Your task to perform on an android device: open a new tab in the chrome app Image 0: 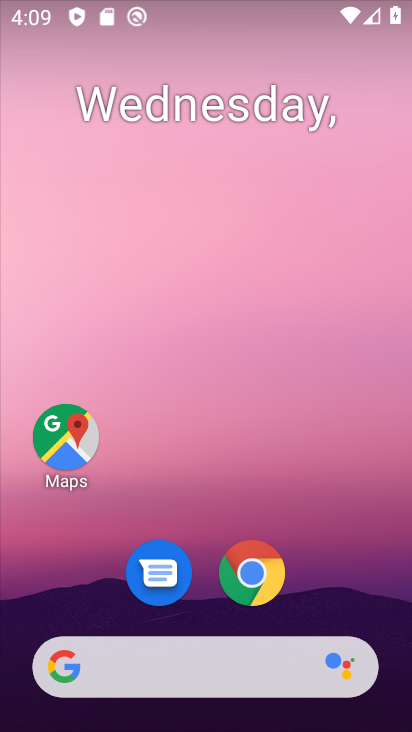
Step 0: click (260, 577)
Your task to perform on an android device: open a new tab in the chrome app Image 1: 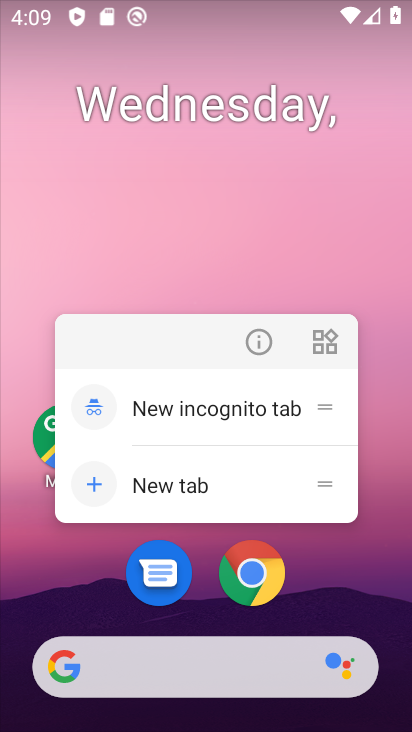
Step 1: click (254, 579)
Your task to perform on an android device: open a new tab in the chrome app Image 2: 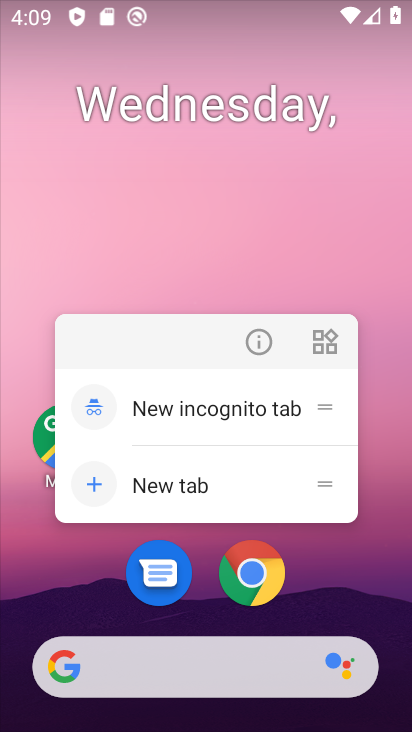
Step 2: click (255, 580)
Your task to perform on an android device: open a new tab in the chrome app Image 3: 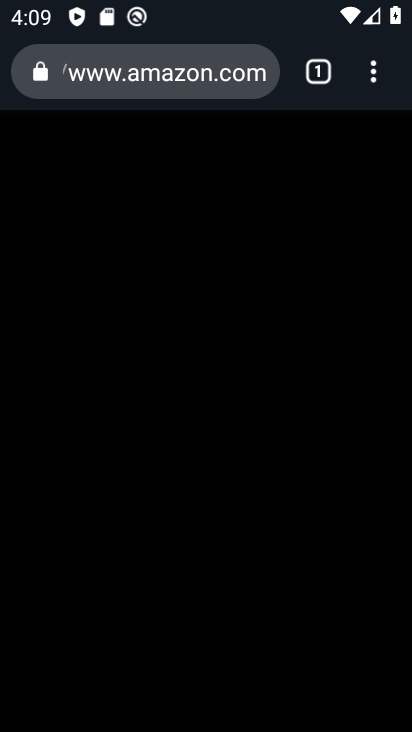
Step 3: click (371, 74)
Your task to perform on an android device: open a new tab in the chrome app Image 4: 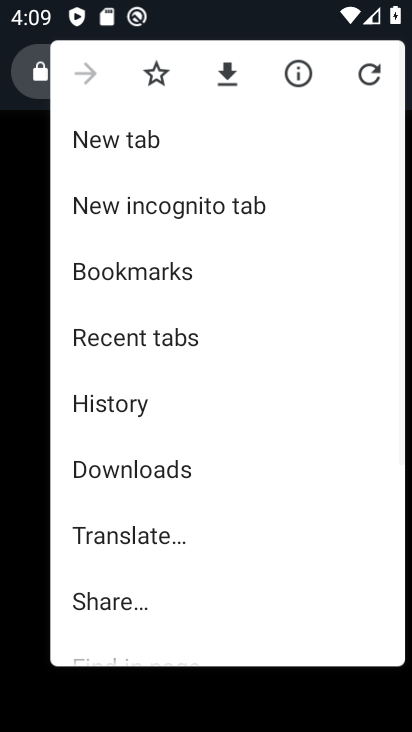
Step 4: click (167, 143)
Your task to perform on an android device: open a new tab in the chrome app Image 5: 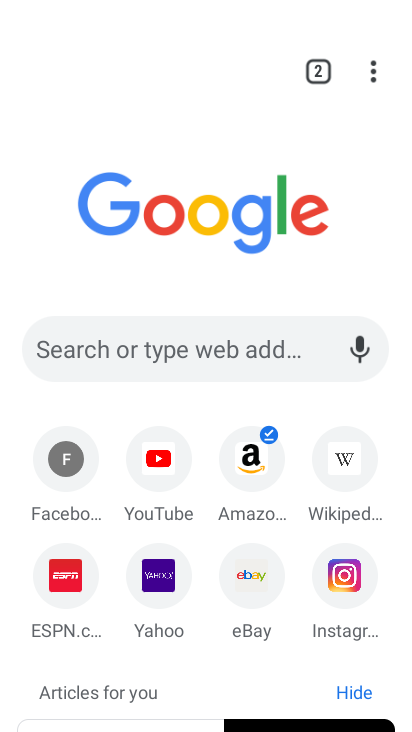
Step 5: task complete